Your task to perform on an android device: see sites visited before in the chrome app Image 0: 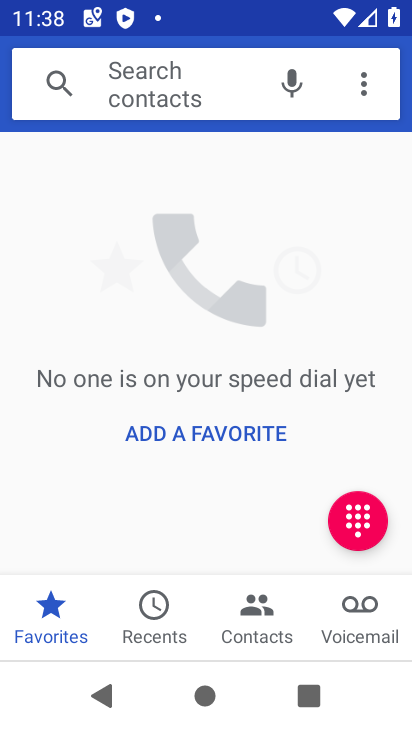
Step 0: press home button
Your task to perform on an android device: see sites visited before in the chrome app Image 1: 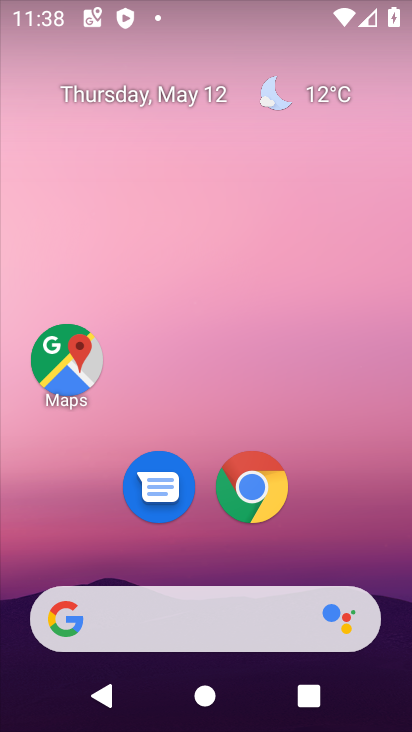
Step 1: drag from (375, 560) to (367, 515)
Your task to perform on an android device: see sites visited before in the chrome app Image 2: 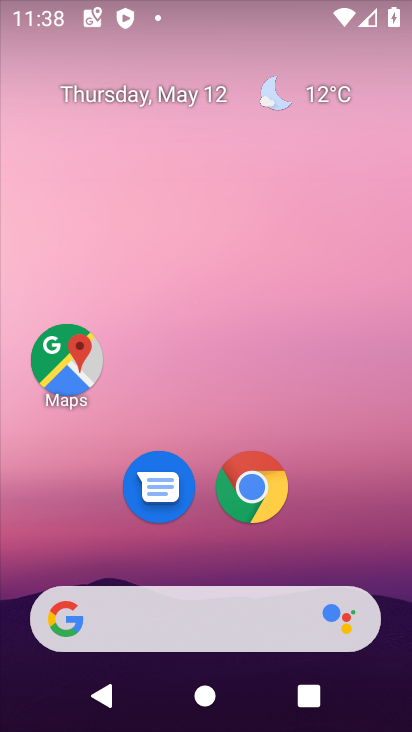
Step 2: click (255, 500)
Your task to perform on an android device: see sites visited before in the chrome app Image 3: 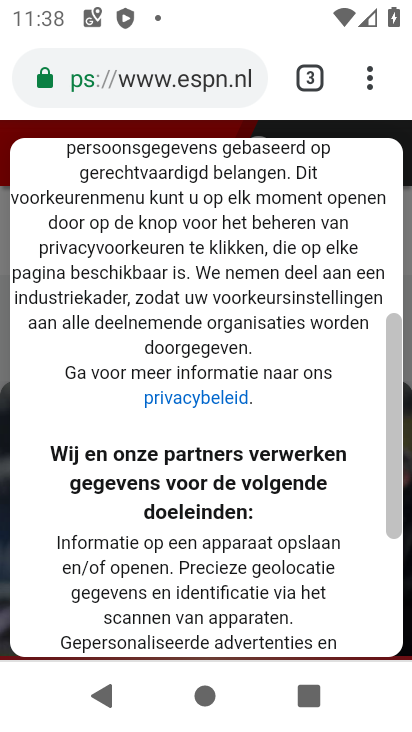
Step 3: task complete